Your task to perform on an android device: Open battery settings Image 0: 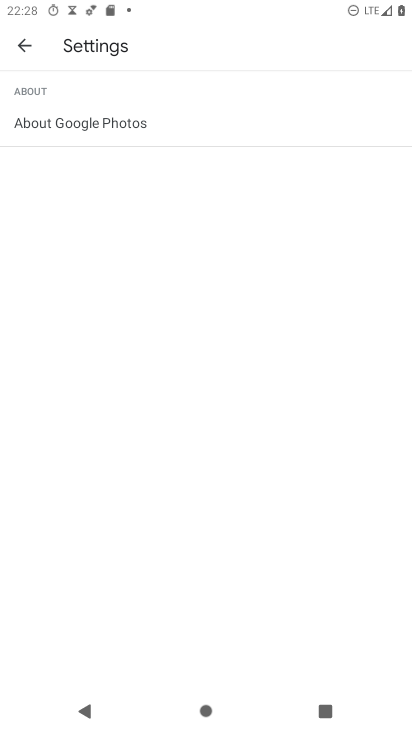
Step 0: press back button
Your task to perform on an android device: Open battery settings Image 1: 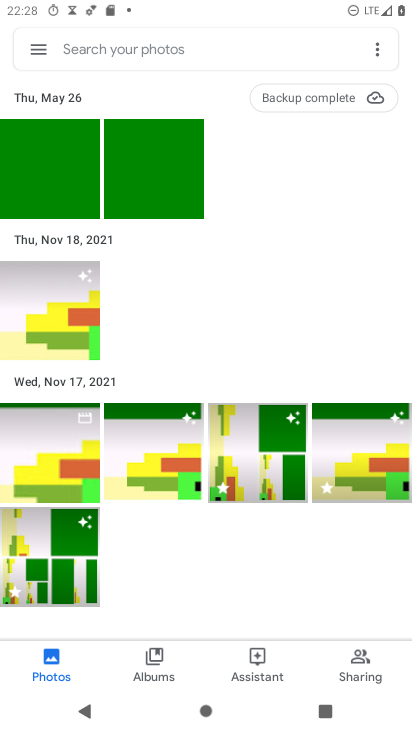
Step 1: press back button
Your task to perform on an android device: Open battery settings Image 2: 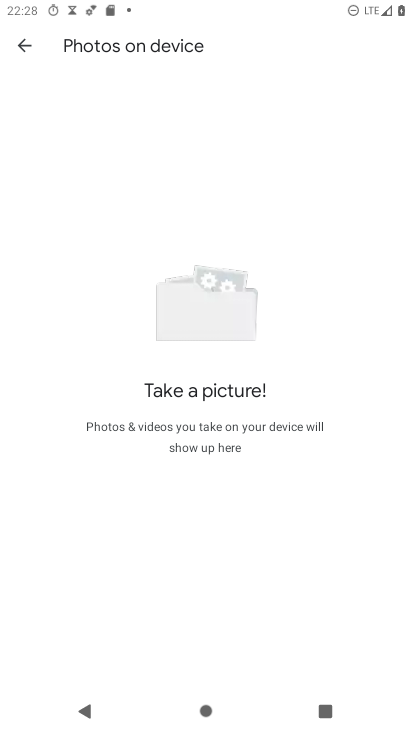
Step 2: press back button
Your task to perform on an android device: Open battery settings Image 3: 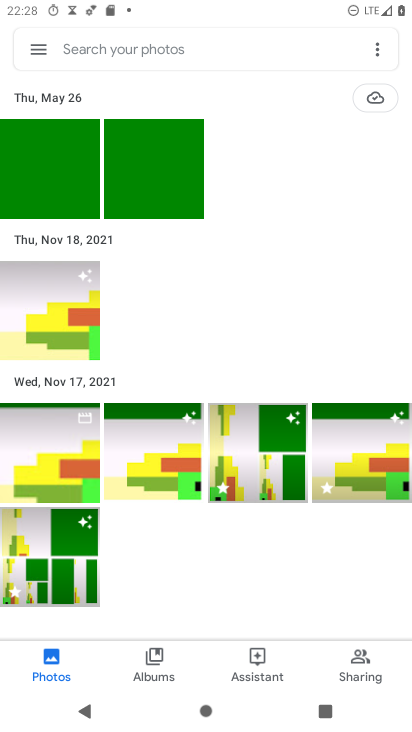
Step 3: press back button
Your task to perform on an android device: Open battery settings Image 4: 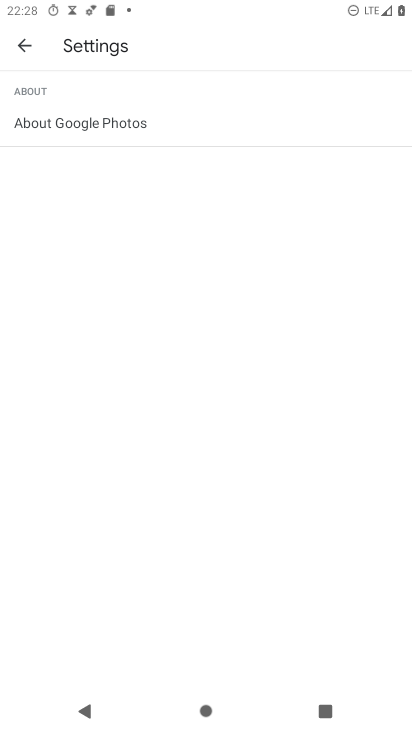
Step 4: press home button
Your task to perform on an android device: Open battery settings Image 5: 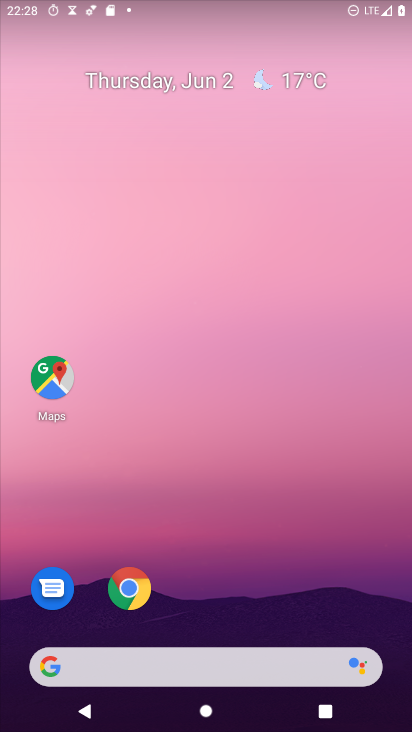
Step 5: drag from (215, 588) to (265, 58)
Your task to perform on an android device: Open battery settings Image 6: 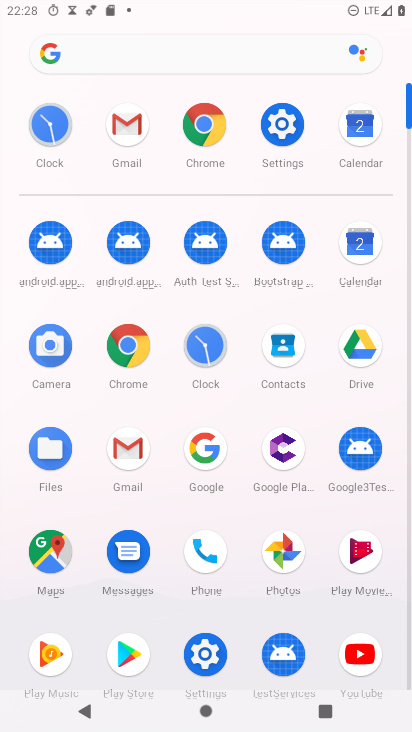
Step 6: click (289, 133)
Your task to perform on an android device: Open battery settings Image 7: 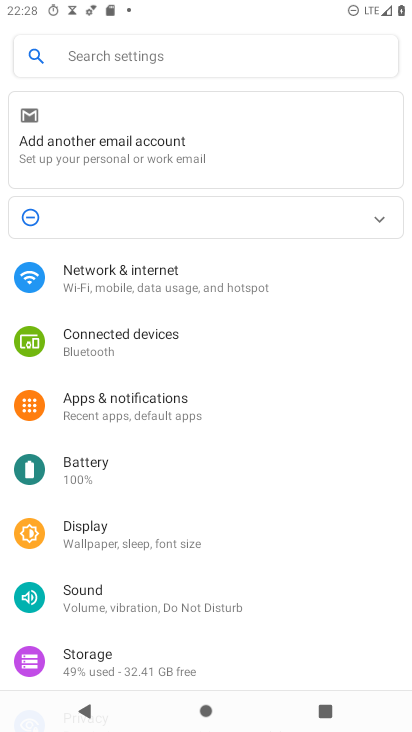
Step 7: click (129, 469)
Your task to perform on an android device: Open battery settings Image 8: 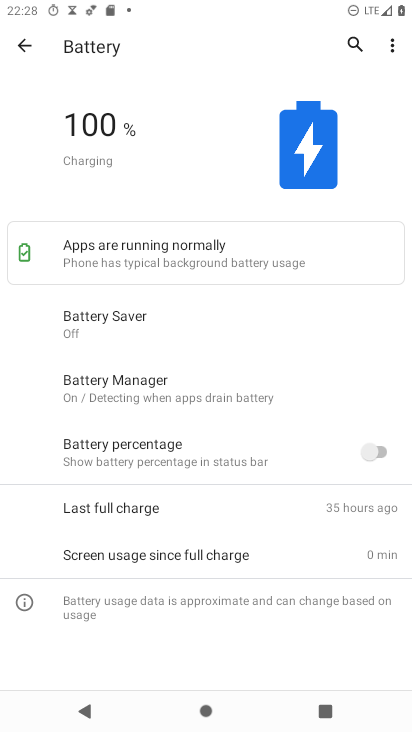
Step 8: task complete